Your task to perform on an android device: change text size in settings app Image 0: 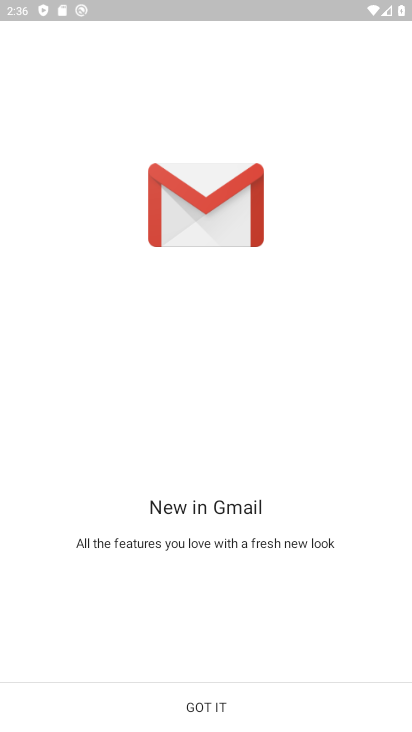
Step 0: click (204, 699)
Your task to perform on an android device: change text size in settings app Image 1: 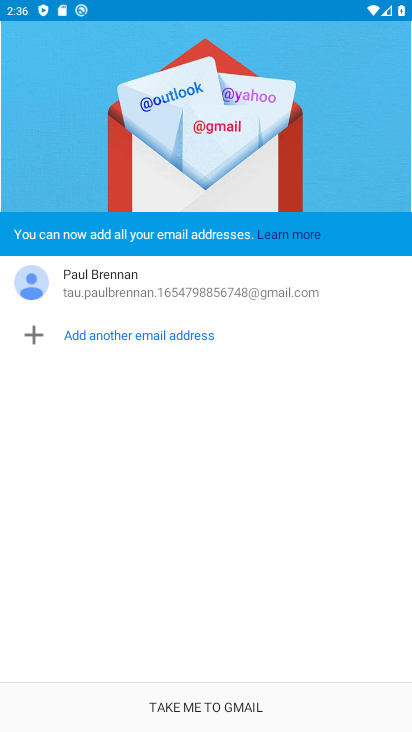
Step 1: press home button
Your task to perform on an android device: change text size in settings app Image 2: 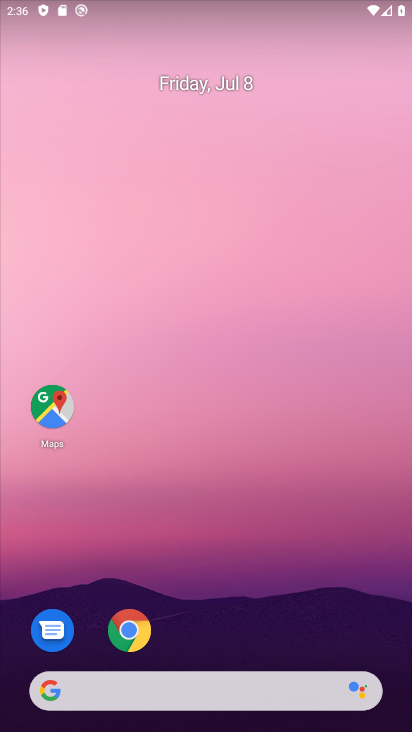
Step 2: drag from (274, 559) to (325, 142)
Your task to perform on an android device: change text size in settings app Image 3: 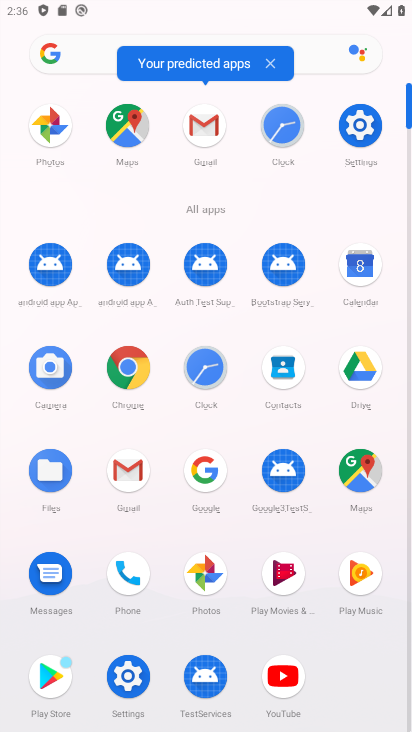
Step 3: click (128, 673)
Your task to perform on an android device: change text size in settings app Image 4: 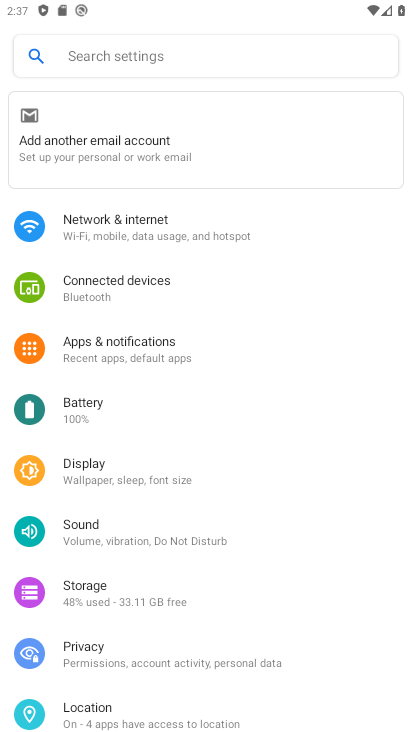
Step 4: drag from (221, 531) to (258, 232)
Your task to perform on an android device: change text size in settings app Image 5: 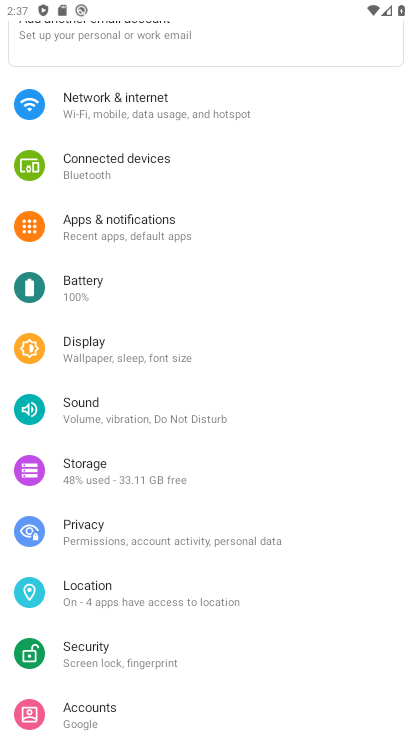
Step 5: click (136, 341)
Your task to perform on an android device: change text size in settings app Image 6: 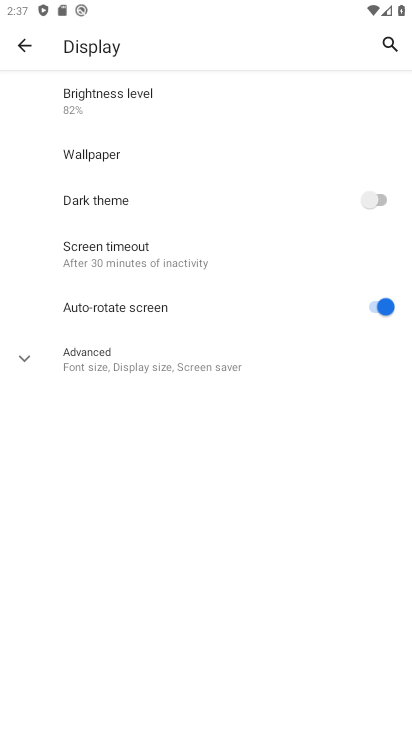
Step 6: click (91, 359)
Your task to perform on an android device: change text size in settings app Image 7: 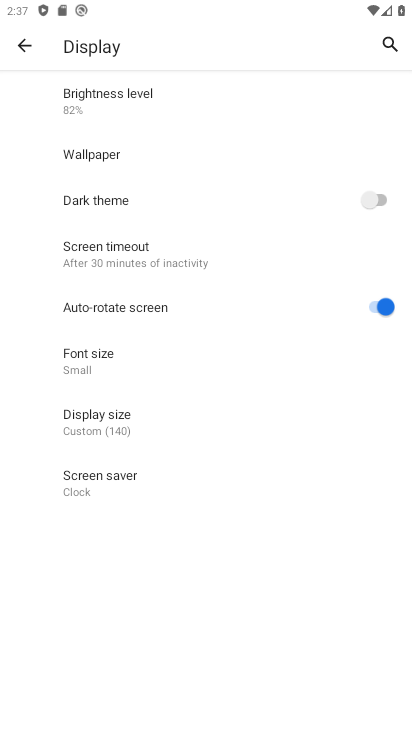
Step 7: click (113, 363)
Your task to perform on an android device: change text size in settings app Image 8: 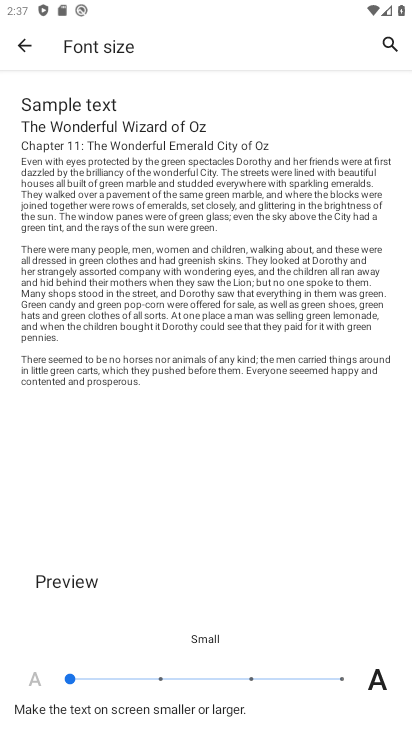
Step 8: click (158, 680)
Your task to perform on an android device: change text size in settings app Image 9: 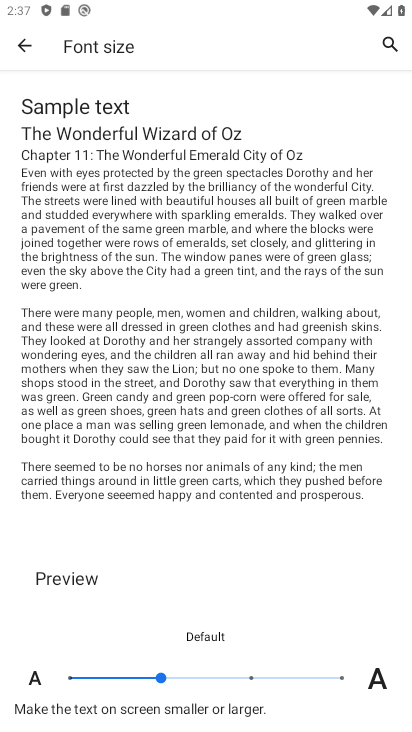
Step 9: task complete